Your task to perform on an android device: toggle improve location accuracy Image 0: 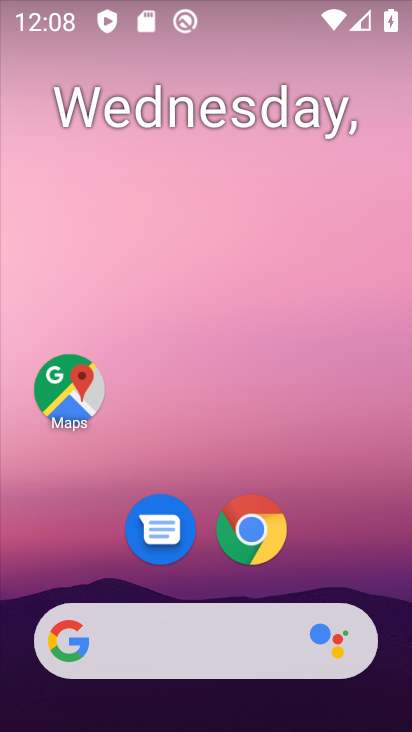
Step 0: drag from (398, 640) to (343, 260)
Your task to perform on an android device: toggle improve location accuracy Image 1: 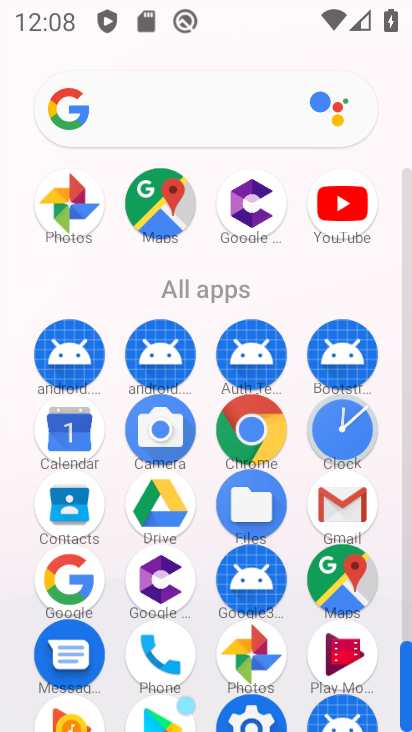
Step 1: drag from (409, 623) to (407, 573)
Your task to perform on an android device: toggle improve location accuracy Image 2: 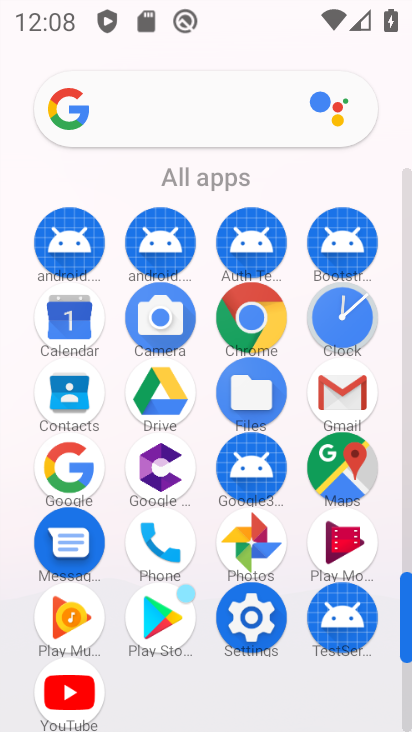
Step 2: click (252, 615)
Your task to perform on an android device: toggle improve location accuracy Image 3: 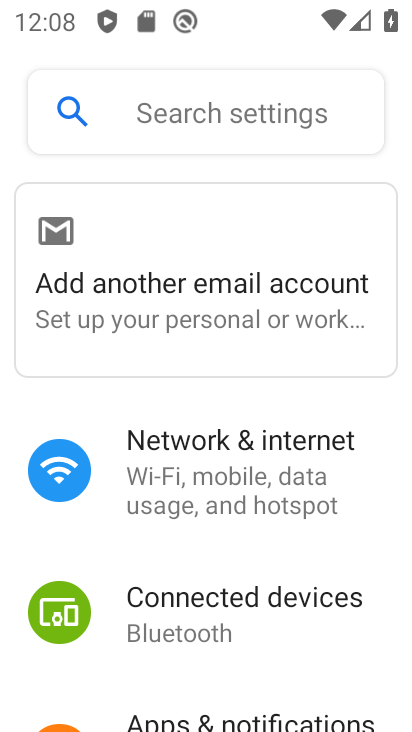
Step 3: drag from (394, 644) to (346, 146)
Your task to perform on an android device: toggle improve location accuracy Image 4: 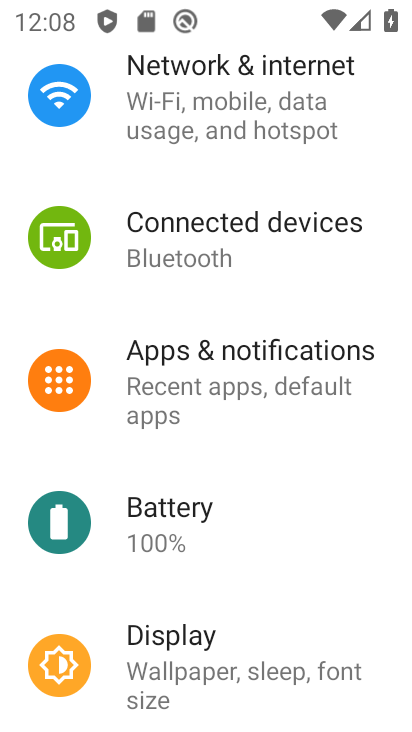
Step 4: drag from (394, 625) to (380, 248)
Your task to perform on an android device: toggle improve location accuracy Image 5: 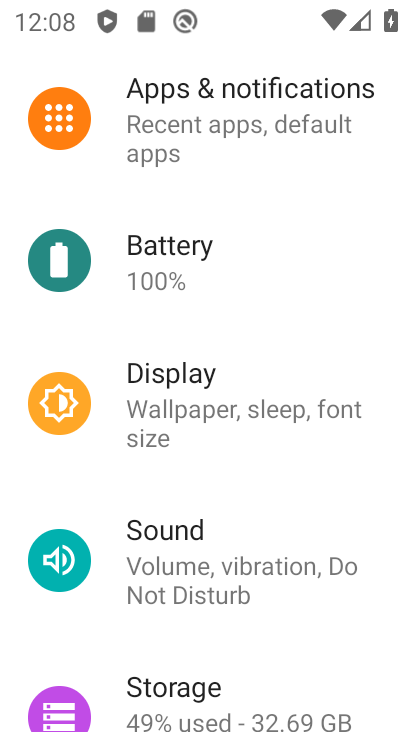
Step 5: drag from (372, 642) to (376, 239)
Your task to perform on an android device: toggle improve location accuracy Image 6: 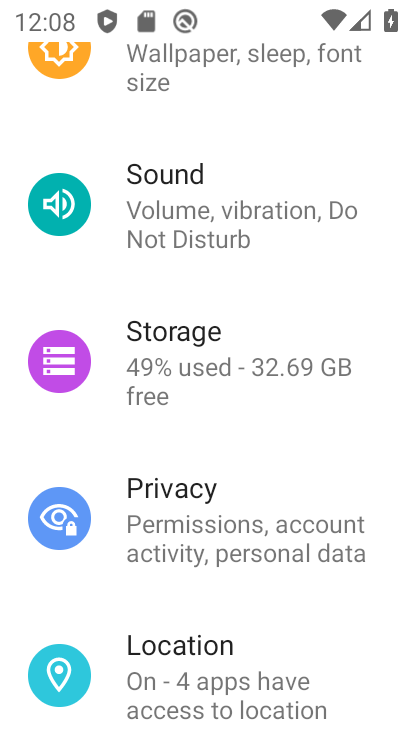
Step 6: drag from (365, 684) to (332, 262)
Your task to perform on an android device: toggle improve location accuracy Image 7: 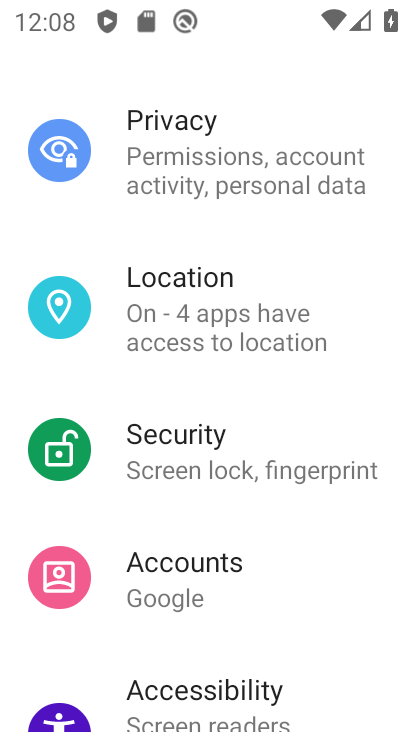
Step 7: click (174, 301)
Your task to perform on an android device: toggle improve location accuracy Image 8: 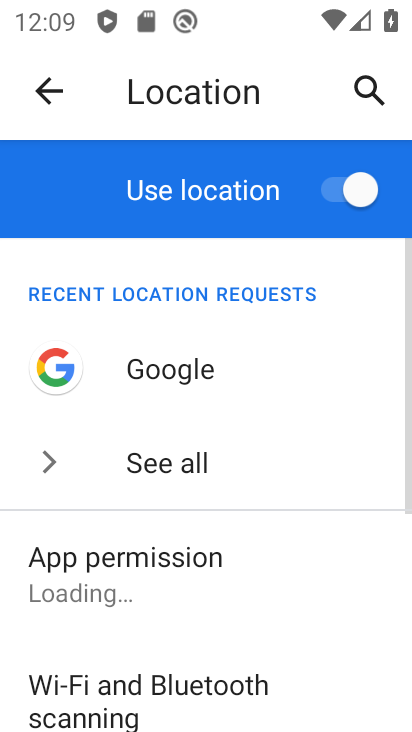
Step 8: drag from (335, 616) to (315, 127)
Your task to perform on an android device: toggle improve location accuracy Image 9: 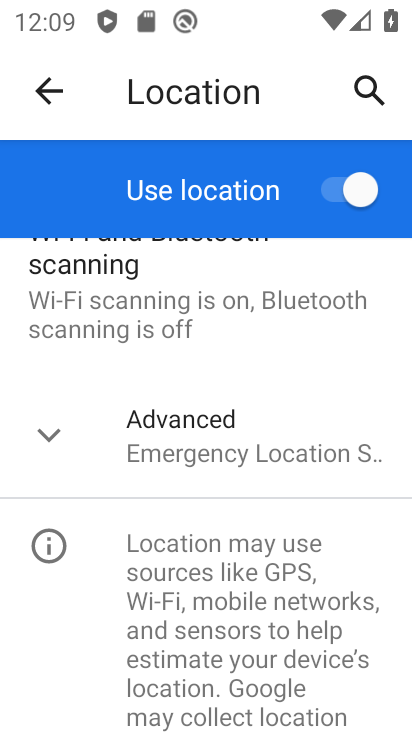
Step 9: click (52, 432)
Your task to perform on an android device: toggle improve location accuracy Image 10: 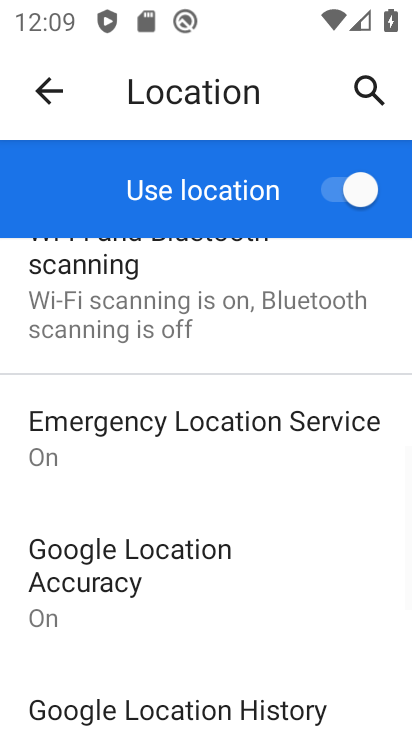
Step 10: drag from (312, 683) to (305, 384)
Your task to perform on an android device: toggle improve location accuracy Image 11: 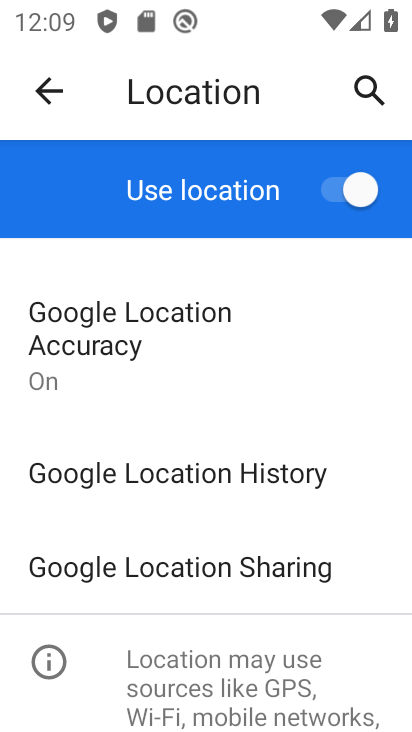
Step 11: click (79, 330)
Your task to perform on an android device: toggle improve location accuracy Image 12: 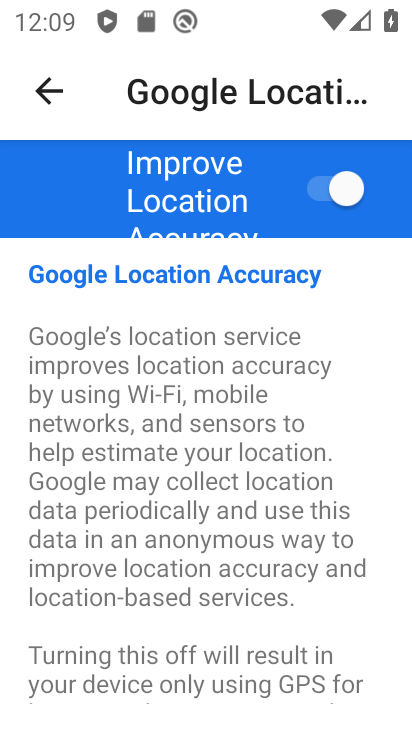
Step 12: click (316, 184)
Your task to perform on an android device: toggle improve location accuracy Image 13: 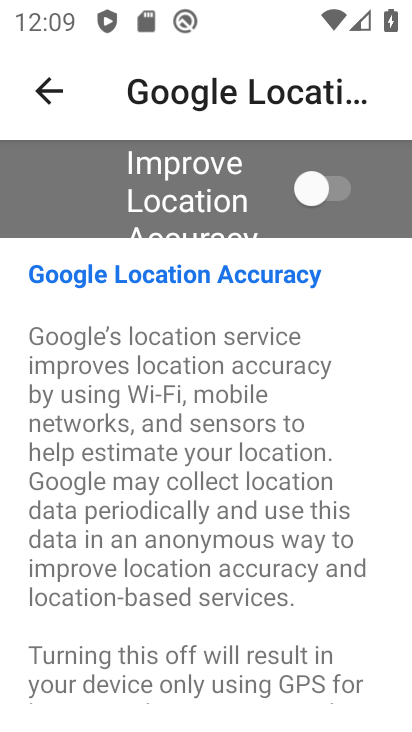
Step 13: task complete